Your task to perform on an android device: Set the phone to "Do not disturb". Image 0: 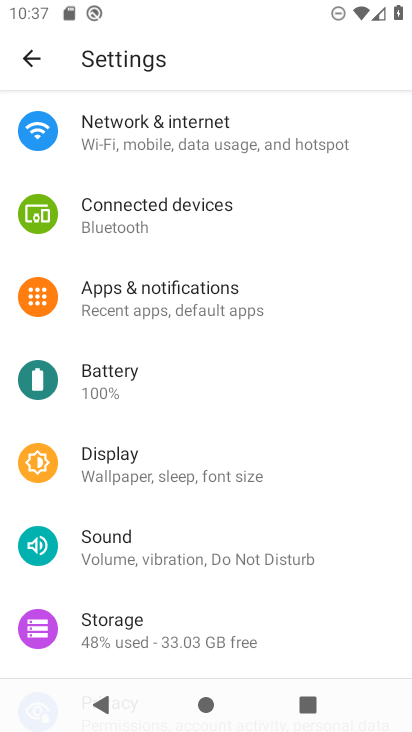
Step 0: click (150, 541)
Your task to perform on an android device: Set the phone to "Do not disturb". Image 1: 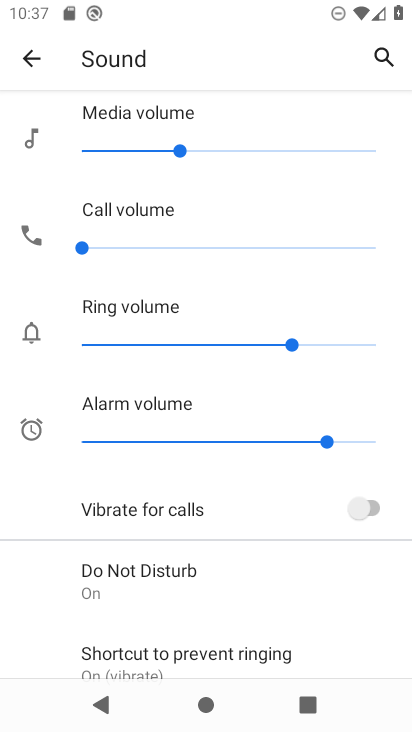
Step 1: click (110, 573)
Your task to perform on an android device: Set the phone to "Do not disturb". Image 2: 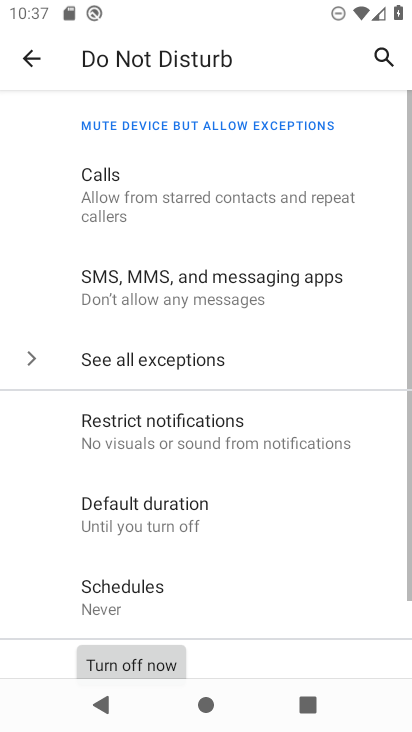
Step 2: task complete